Your task to perform on an android device: Search for vegetarian restaurants on Maps Image 0: 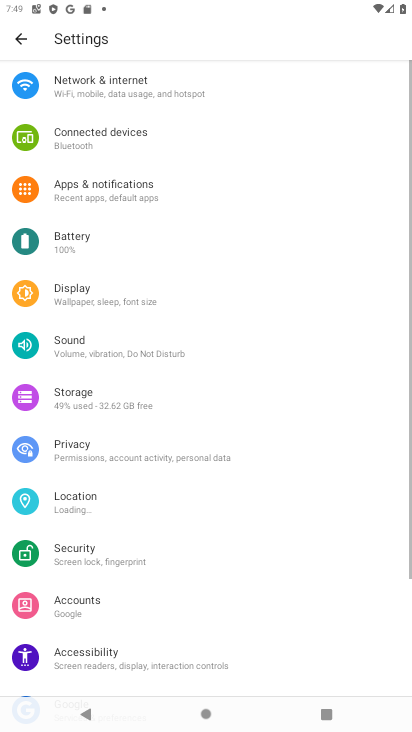
Step 0: press home button
Your task to perform on an android device: Search for vegetarian restaurants on Maps Image 1: 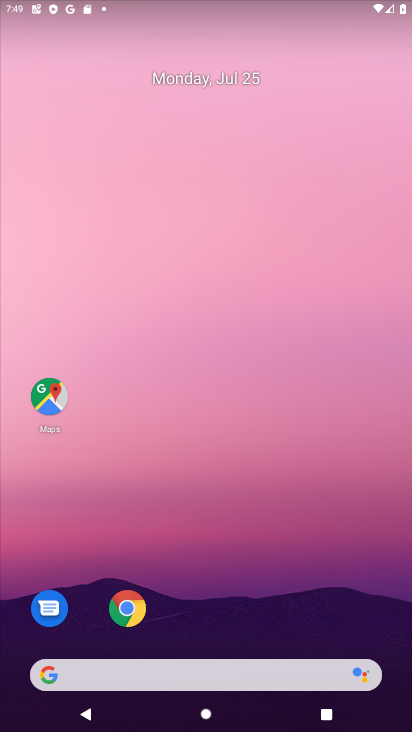
Step 1: drag from (249, 552) to (236, 163)
Your task to perform on an android device: Search for vegetarian restaurants on Maps Image 2: 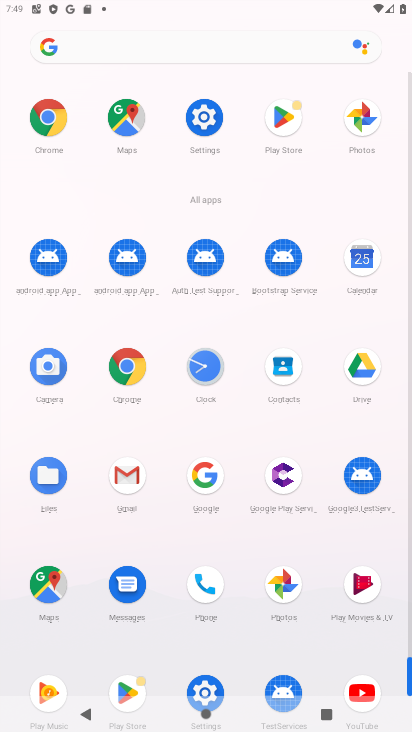
Step 2: click (43, 597)
Your task to perform on an android device: Search for vegetarian restaurants on Maps Image 3: 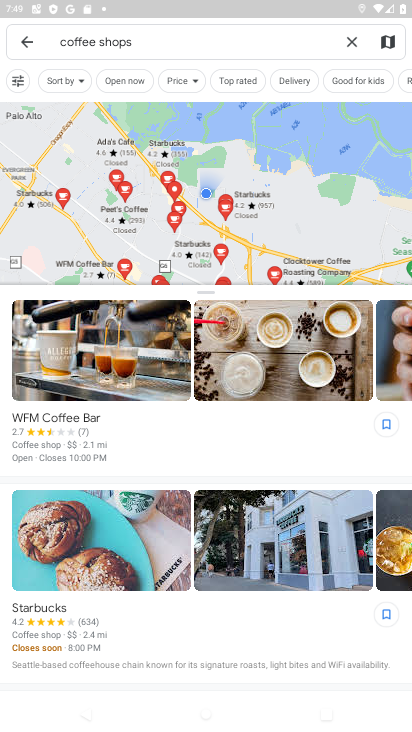
Step 3: click (340, 45)
Your task to perform on an android device: Search for vegetarian restaurants on Maps Image 4: 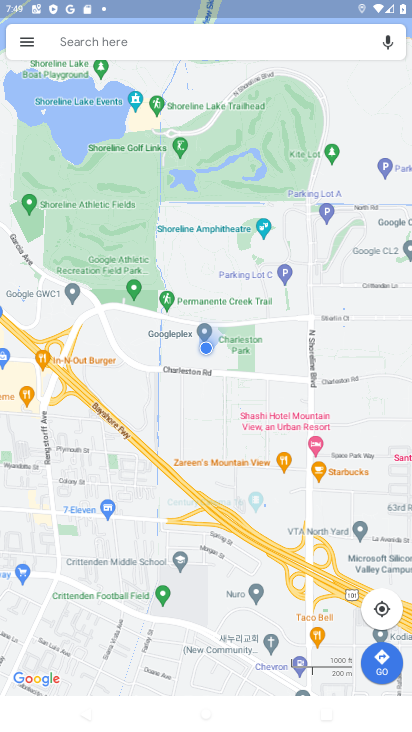
Step 4: click (302, 45)
Your task to perform on an android device: Search for vegetarian restaurants on Maps Image 5: 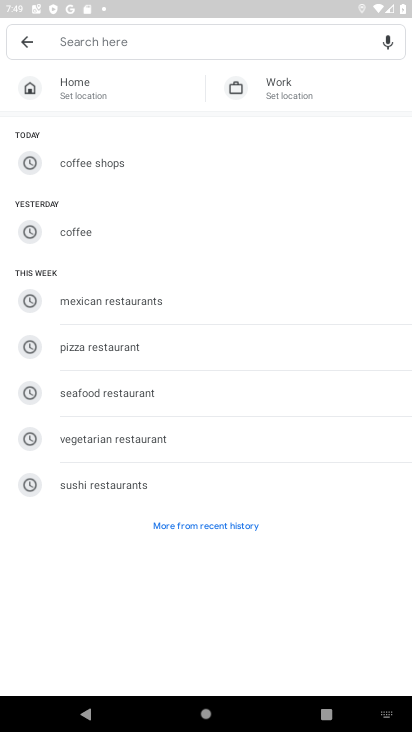
Step 5: click (153, 448)
Your task to perform on an android device: Search for vegetarian restaurants on Maps Image 6: 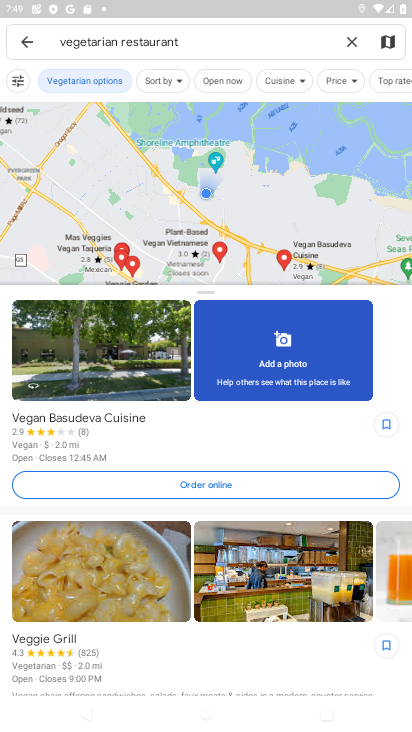
Step 6: task complete